Your task to perform on an android device: find which apps use the phone's location Image 0: 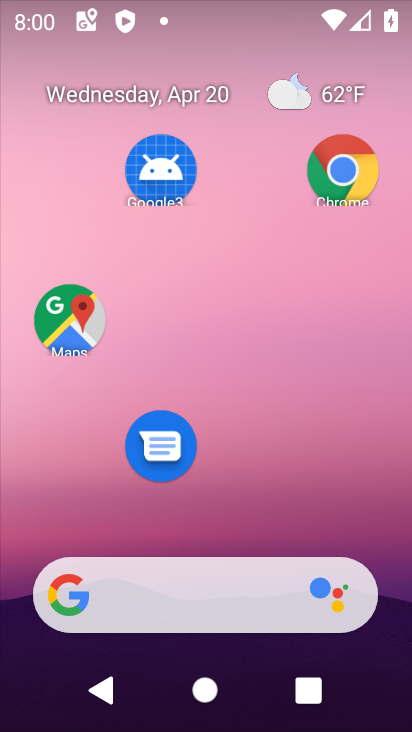
Step 0: drag from (260, 519) to (192, 103)
Your task to perform on an android device: find which apps use the phone's location Image 1: 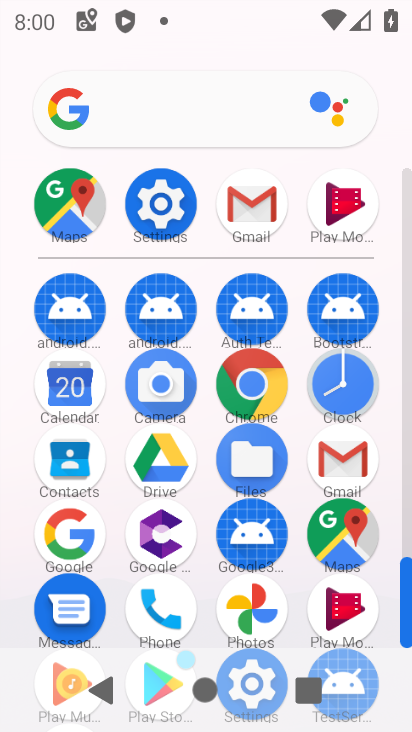
Step 1: click (157, 203)
Your task to perform on an android device: find which apps use the phone's location Image 2: 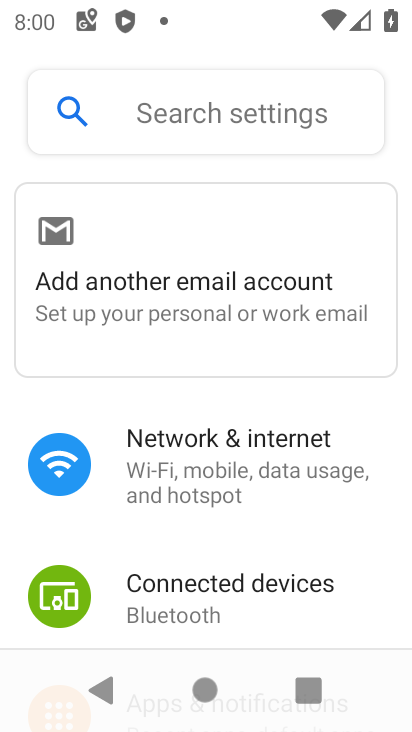
Step 2: drag from (237, 553) to (222, 202)
Your task to perform on an android device: find which apps use the phone's location Image 3: 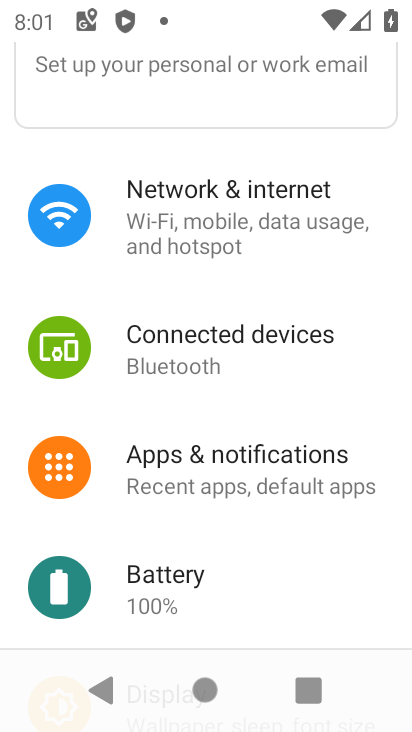
Step 3: drag from (237, 560) to (201, 200)
Your task to perform on an android device: find which apps use the phone's location Image 4: 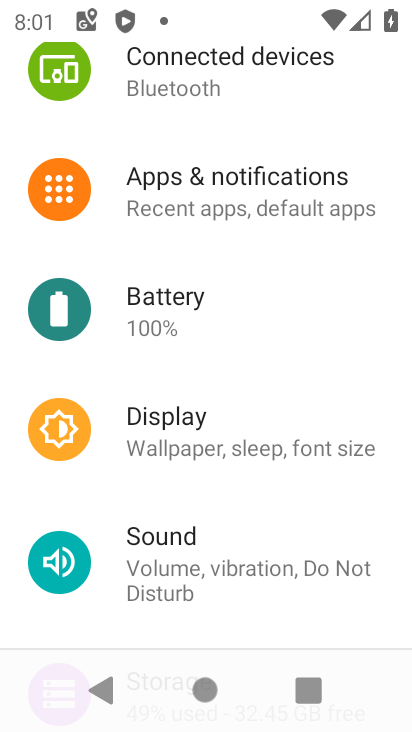
Step 4: drag from (225, 534) to (226, 410)
Your task to perform on an android device: find which apps use the phone's location Image 5: 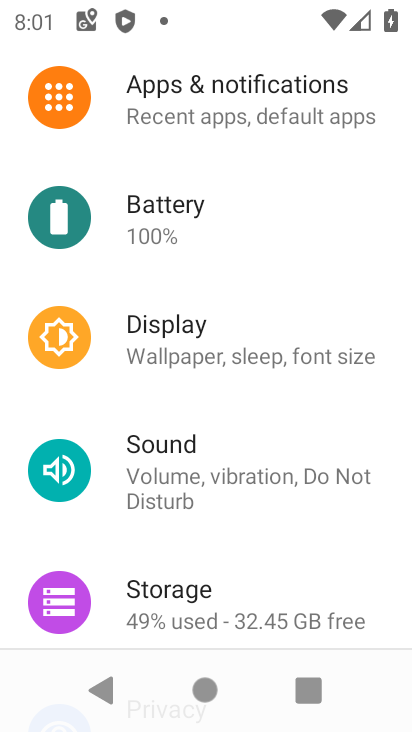
Step 5: drag from (158, 564) to (117, 206)
Your task to perform on an android device: find which apps use the phone's location Image 6: 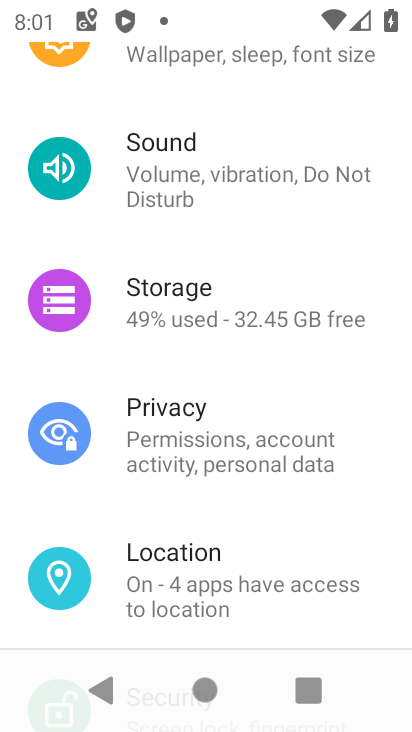
Step 6: click (156, 556)
Your task to perform on an android device: find which apps use the phone's location Image 7: 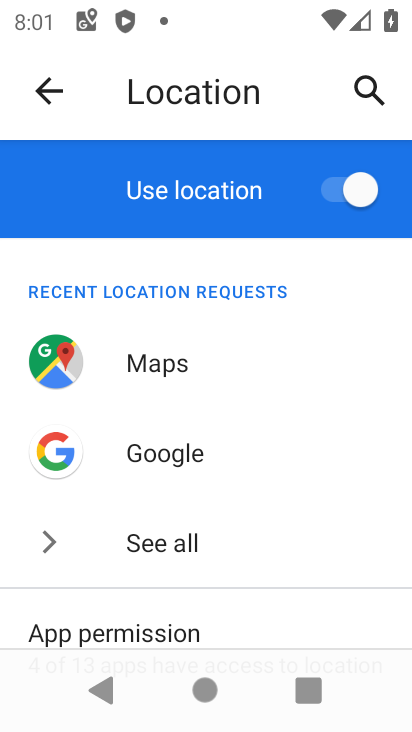
Step 7: click (168, 542)
Your task to perform on an android device: find which apps use the phone's location Image 8: 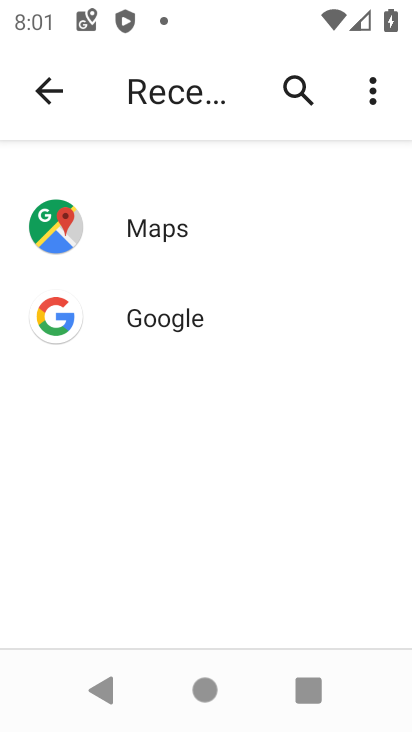
Step 8: task complete